Your task to perform on an android device: delete location history Image 0: 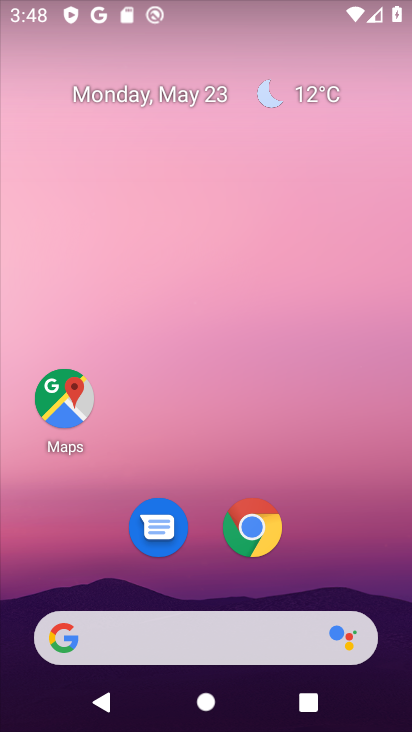
Step 0: drag from (210, 585) to (217, 6)
Your task to perform on an android device: delete location history Image 1: 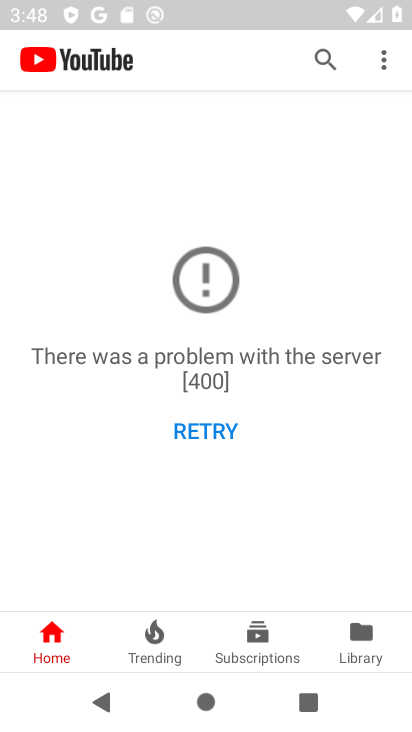
Step 1: press home button
Your task to perform on an android device: delete location history Image 2: 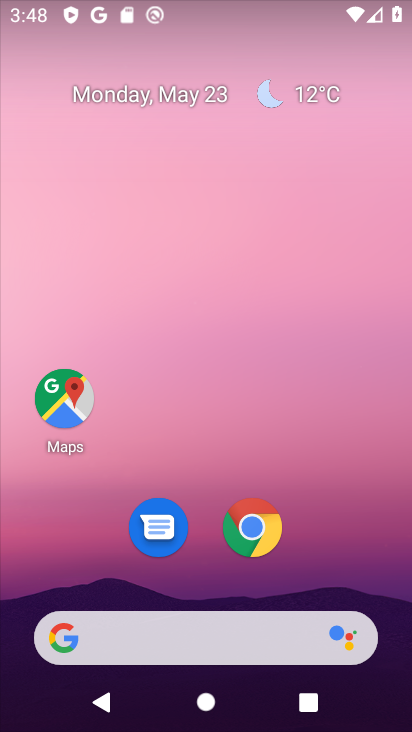
Step 2: drag from (203, 587) to (217, 40)
Your task to perform on an android device: delete location history Image 3: 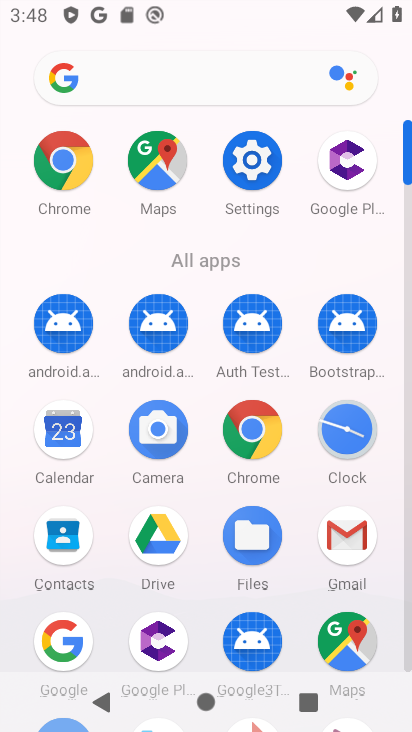
Step 3: click (349, 635)
Your task to perform on an android device: delete location history Image 4: 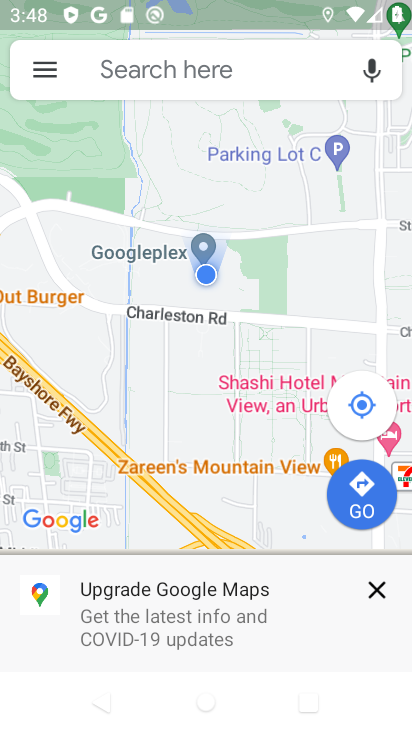
Step 4: click (45, 61)
Your task to perform on an android device: delete location history Image 5: 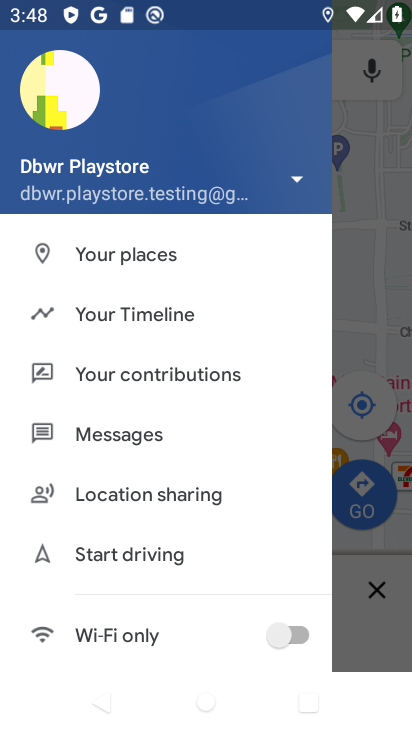
Step 5: click (202, 310)
Your task to perform on an android device: delete location history Image 6: 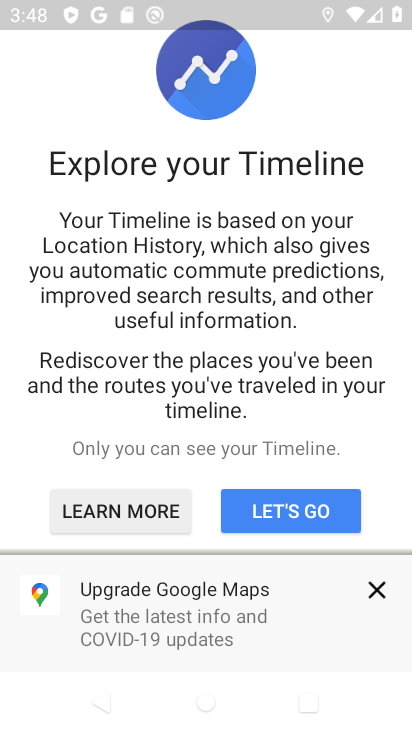
Step 6: click (375, 590)
Your task to perform on an android device: delete location history Image 7: 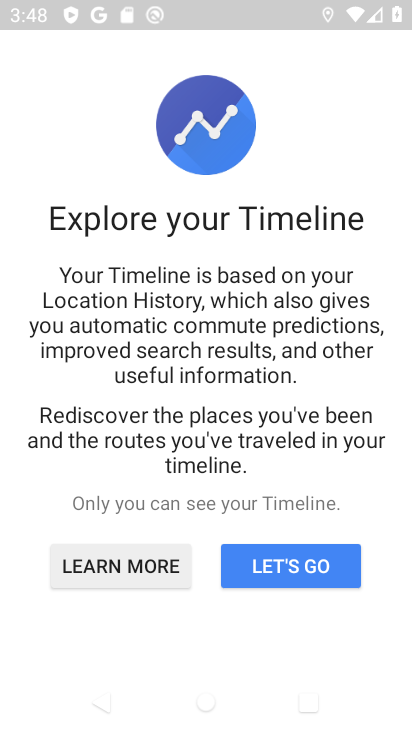
Step 7: click (292, 559)
Your task to perform on an android device: delete location history Image 8: 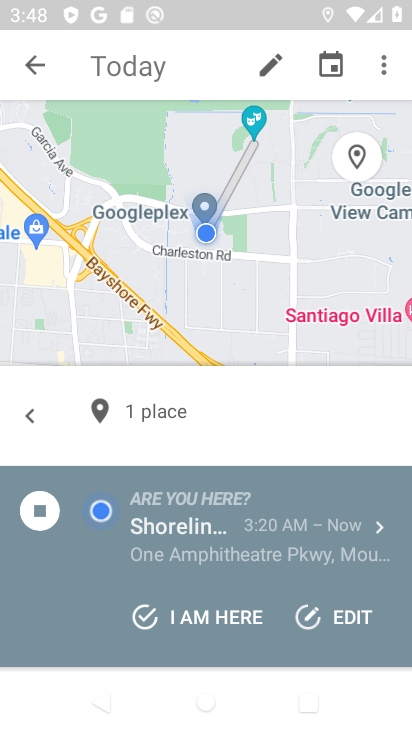
Step 8: click (378, 56)
Your task to perform on an android device: delete location history Image 9: 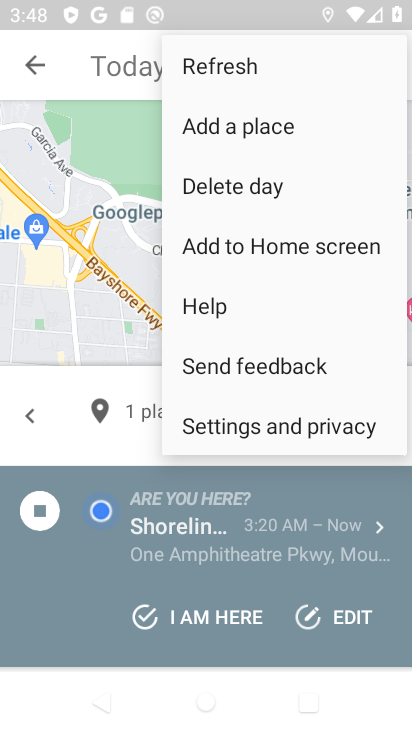
Step 9: click (267, 419)
Your task to perform on an android device: delete location history Image 10: 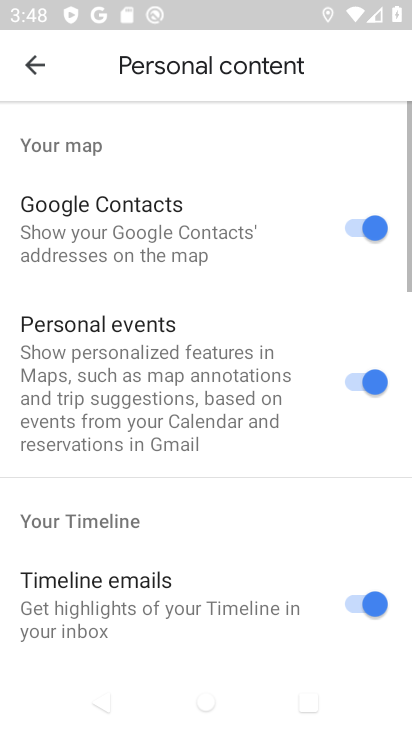
Step 10: drag from (250, 565) to (269, 81)
Your task to perform on an android device: delete location history Image 11: 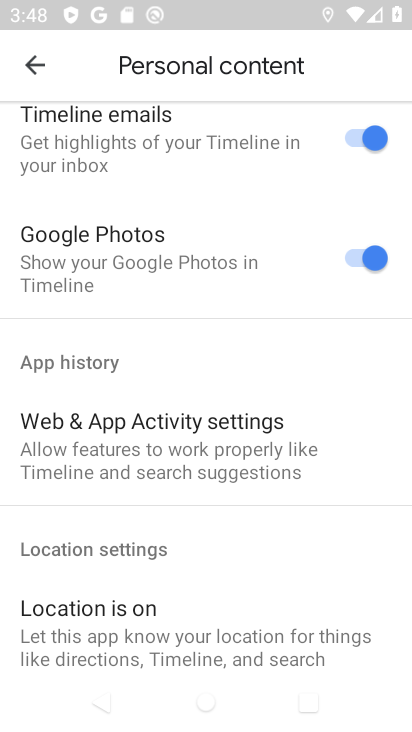
Step 11: drag from (228, 603) to (233, 140)
Your task to perform on an android device: delete location history Image 12: 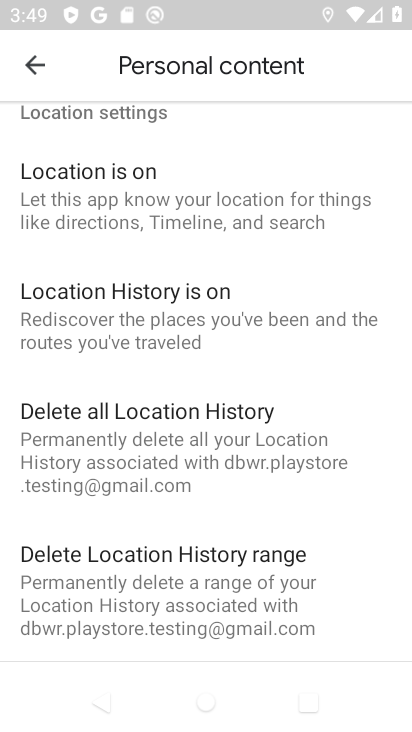
Step 12: click (348, 434)
Your task to perform on an android device: delete location history Image 13: 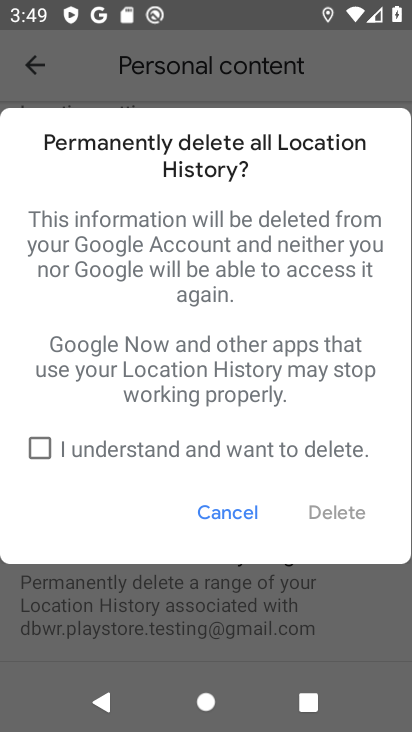
Step 13: click (33, 438)
Your task to perform on an android device: delete location history Image 14: 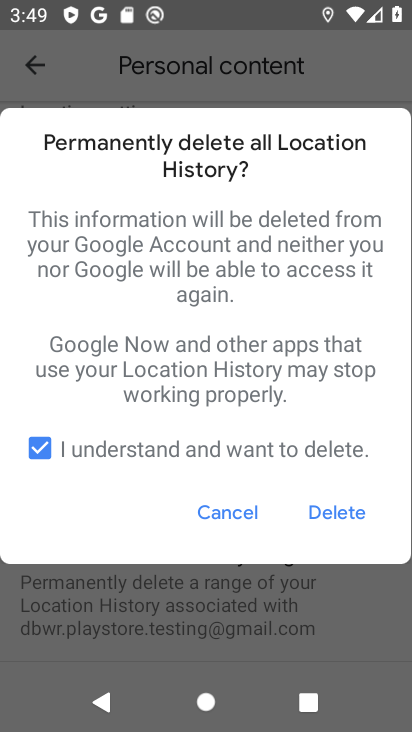
Step 14: click (329, 514)
Your task to perform on an android device: delete location history Image 15: 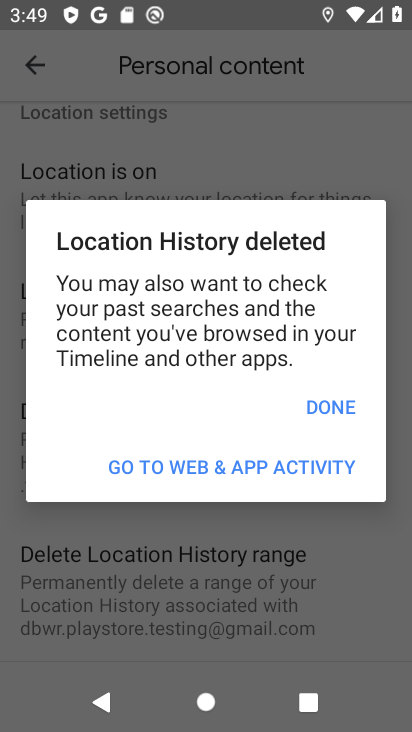
Step 15: click (329, 403)
Your task to perform on an android device: delete location history Image 16: 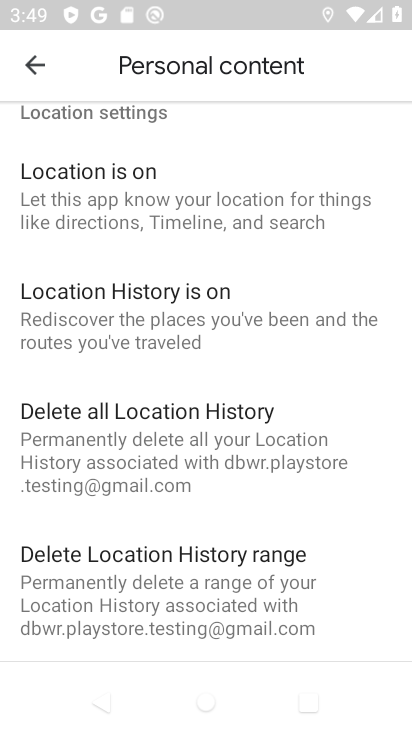
Step 16: task complete